Your task to perform on an android device: uninstall "WhatsApp Messenger" Image 0: 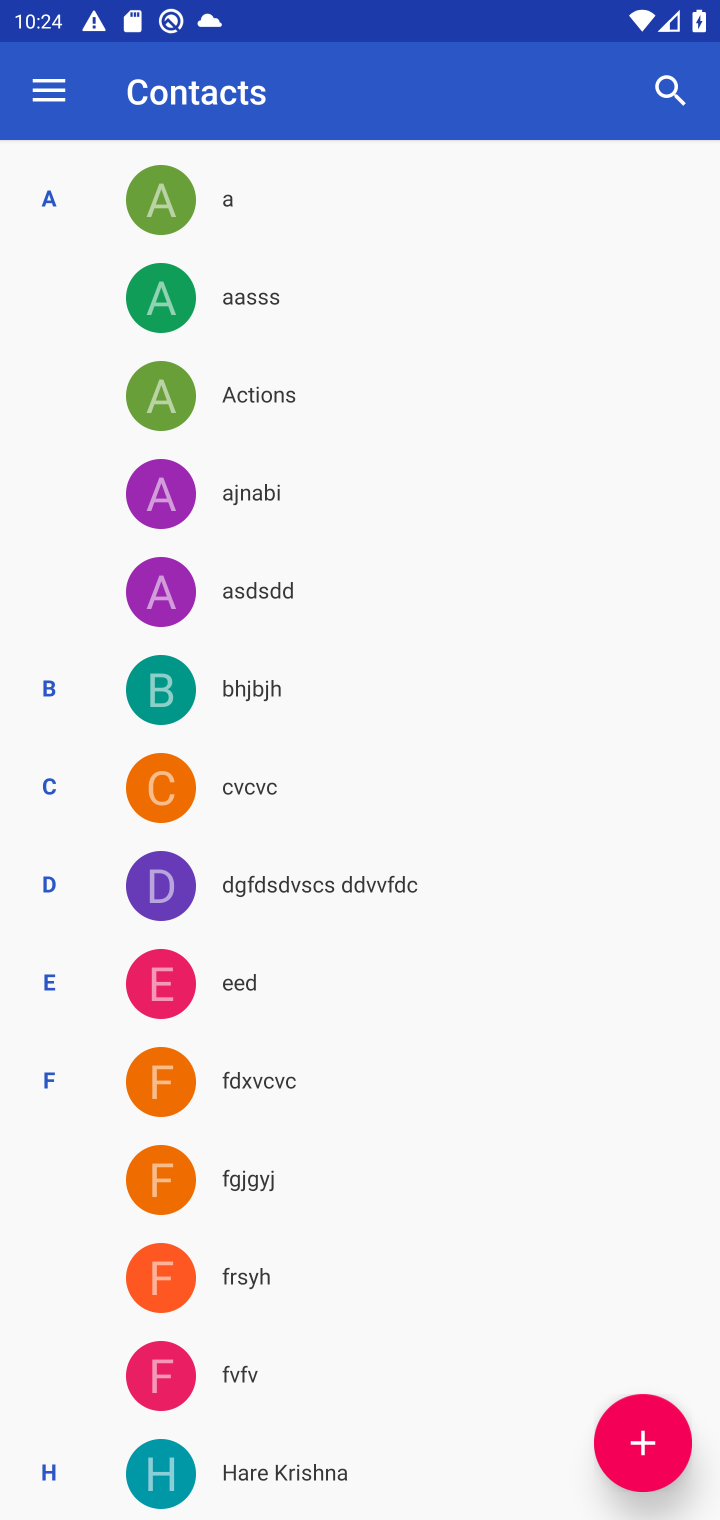
Step 0: press home button
Your task to perform on an android device: uninstall "WhatsApp Messenger" Image 1: 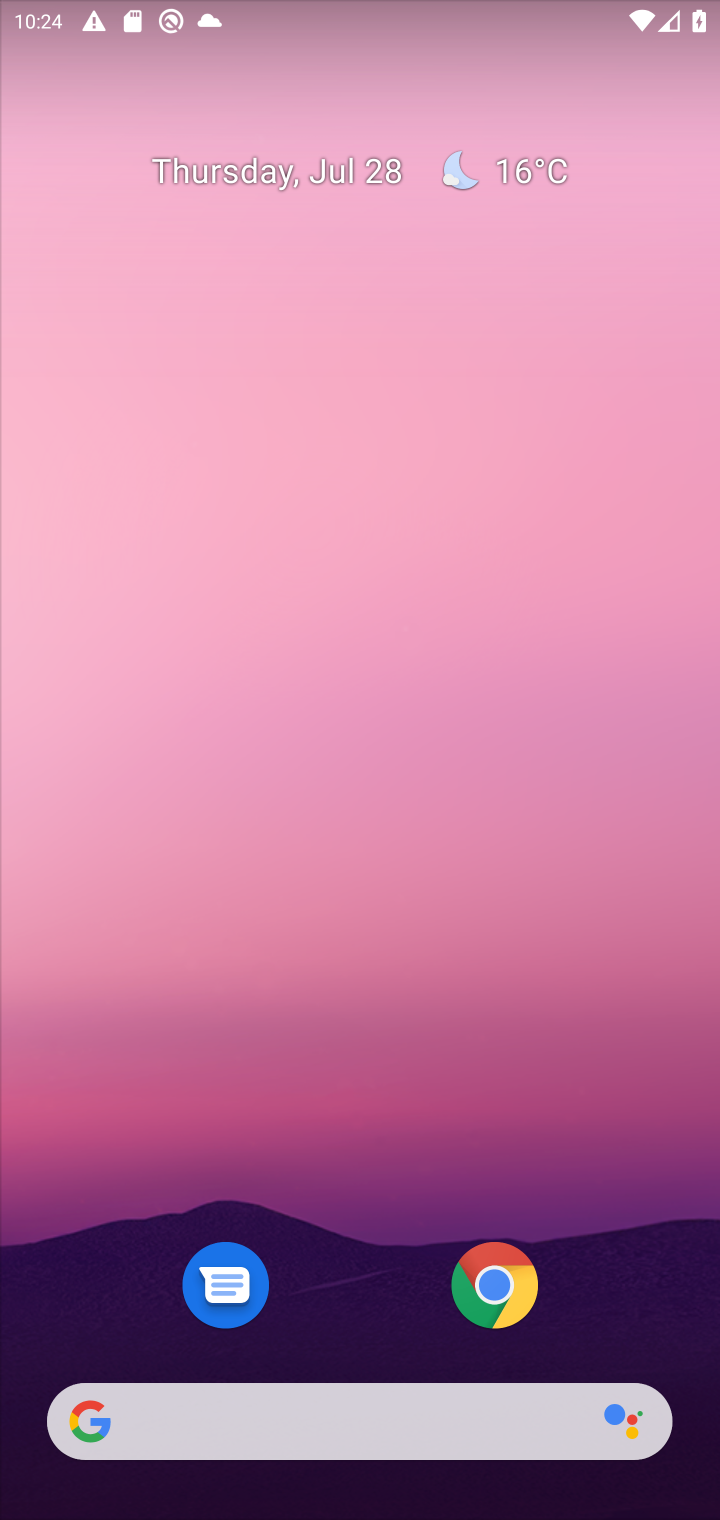
Step 1: drag from (370, 949) to (323, 337)
Your task to perform on an android device: uninstall "WhatsApp Messenger" Image 2: 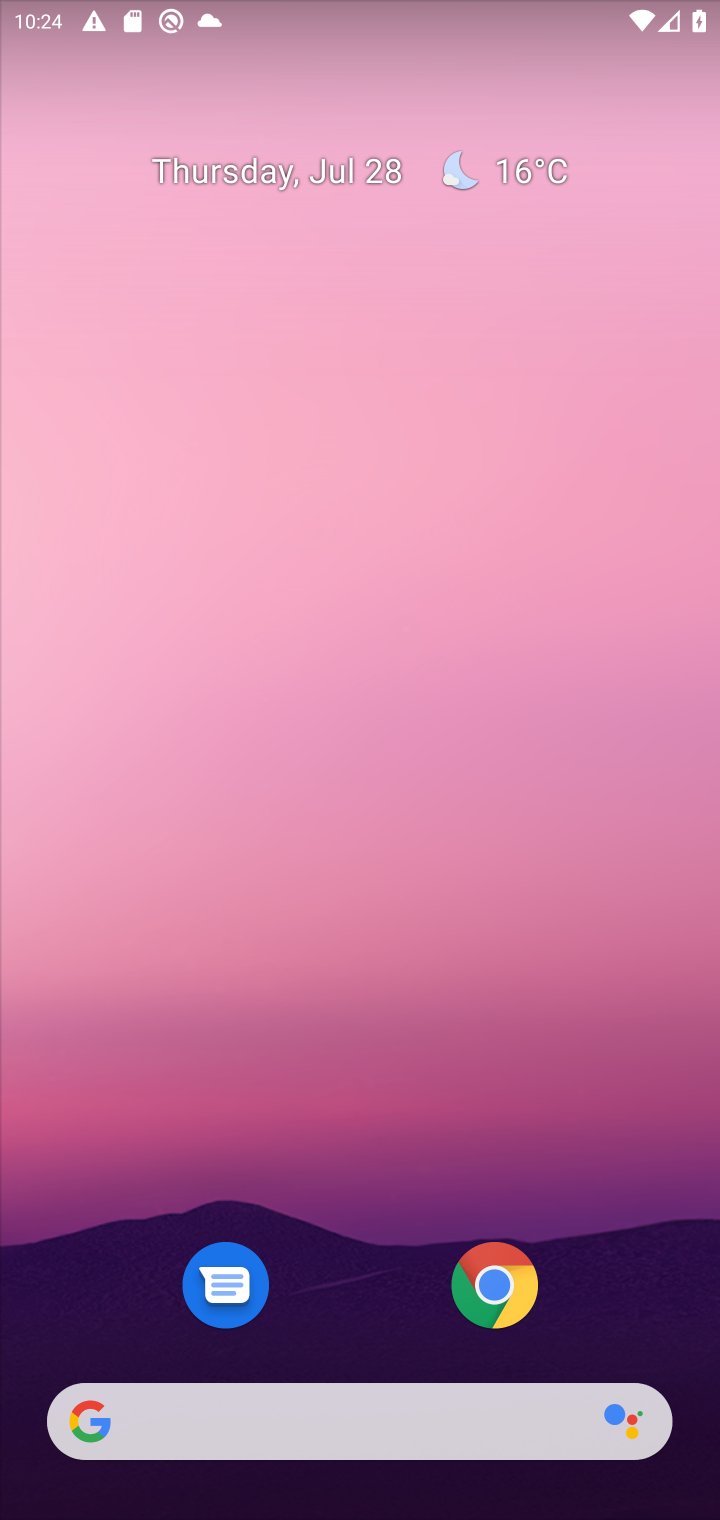
Step 2: drag from (365, 1289) to (498, 198)
Your task to perform on an android device: uninstall "WhatsApp Messenger" Image 3: 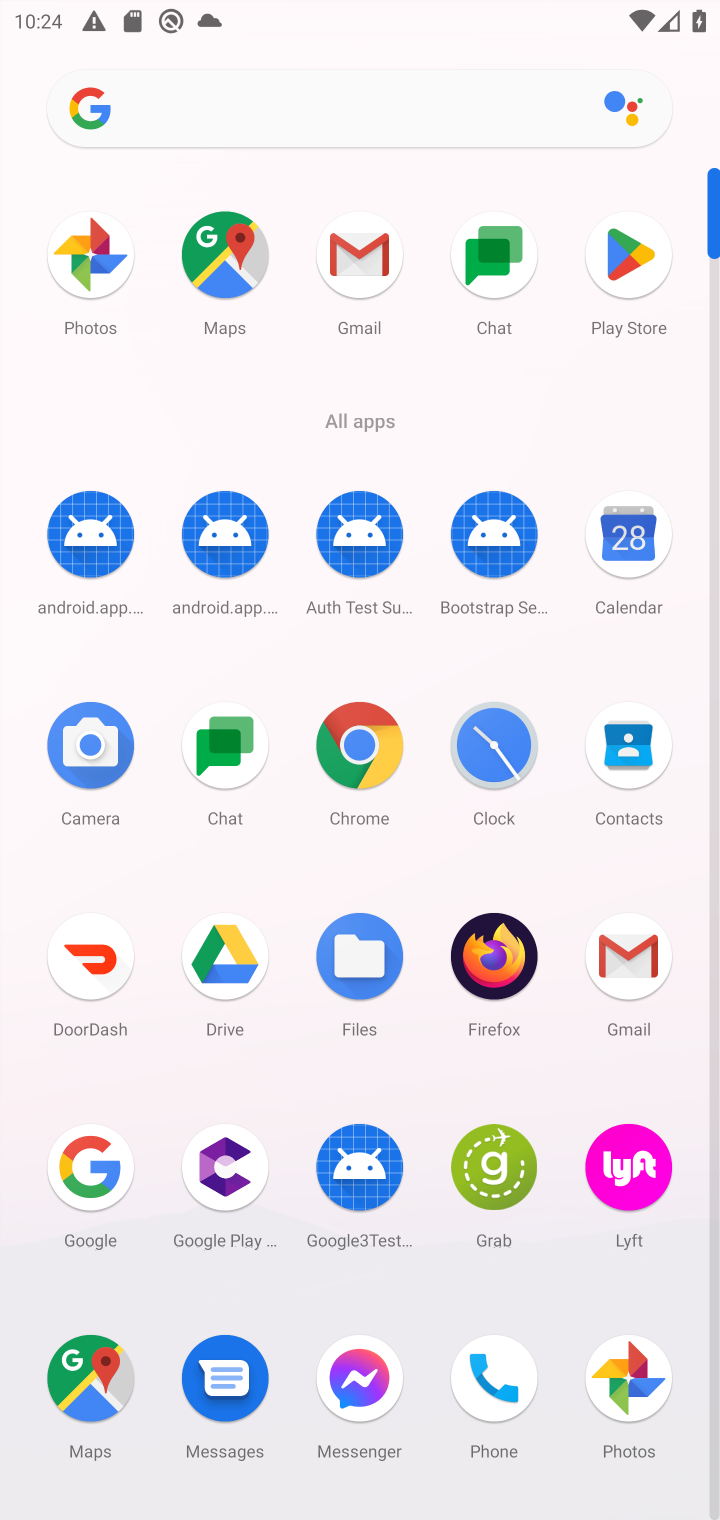
Step 3: click (640, 276)
Your task to perform on an android device: uninstall "WhatsApp Messenger" Image 4: 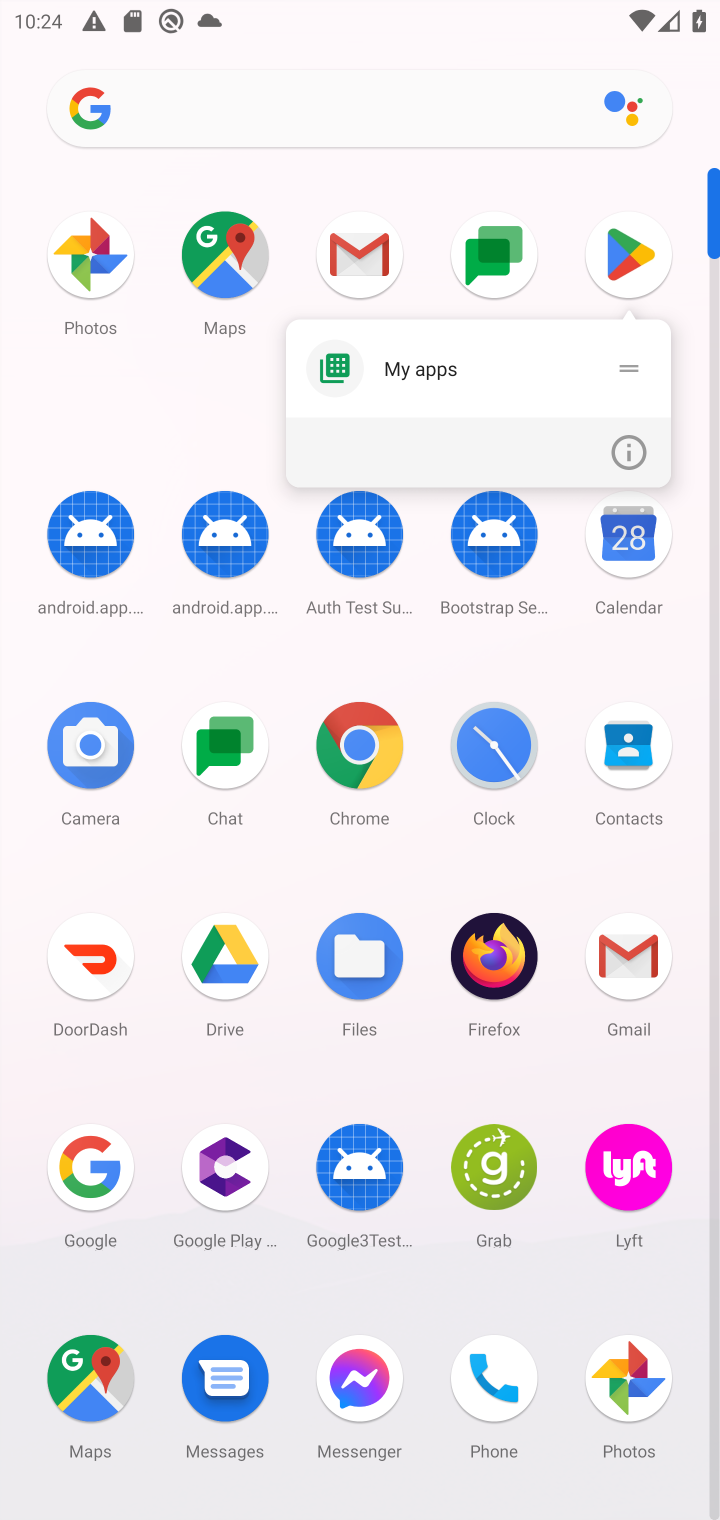
Step 4: click (634, 255)
Your task to perform on an android device: uninstall "WhatsApp Messenger" Image 5: 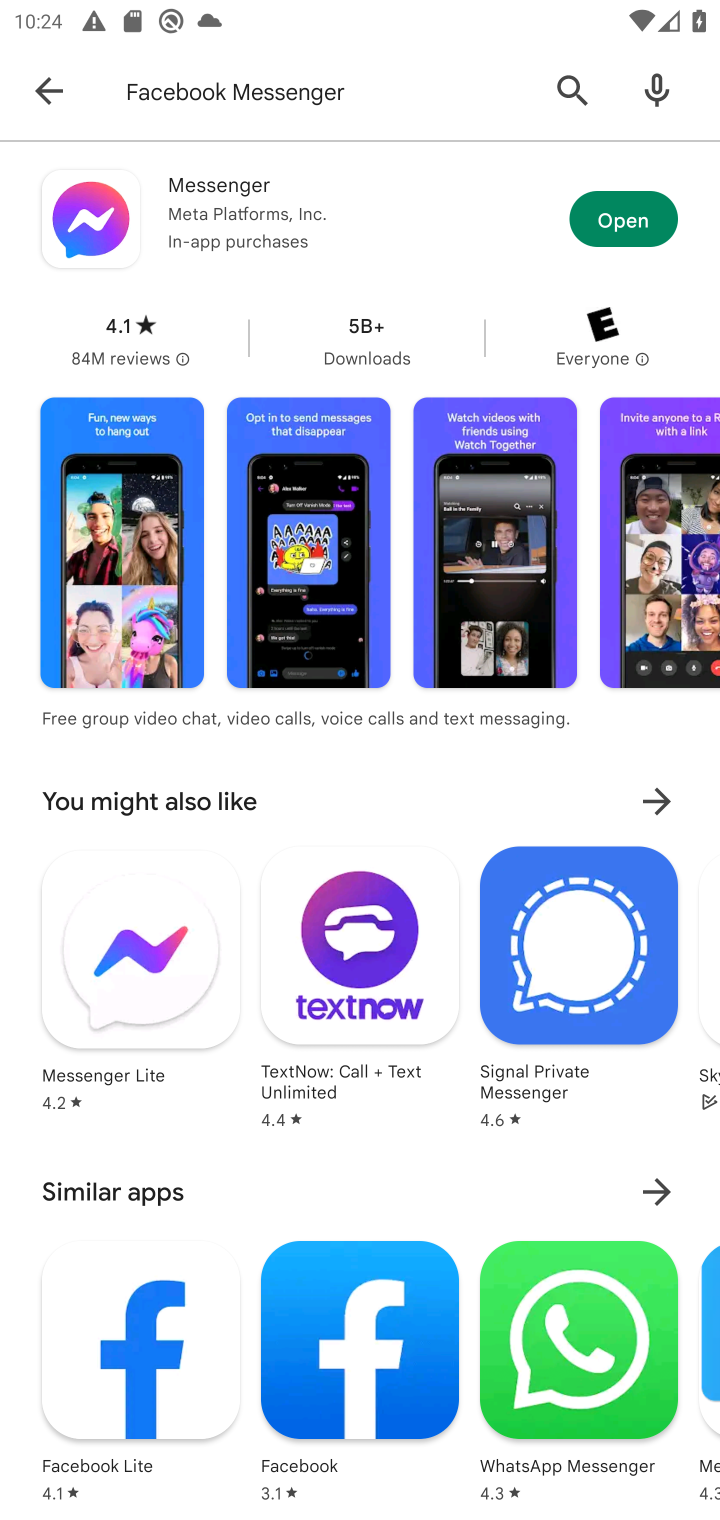
Step 5: click (338, 78)
Your task to perform on an android device: uninstall "WhatsApp Messenger" Image 6: 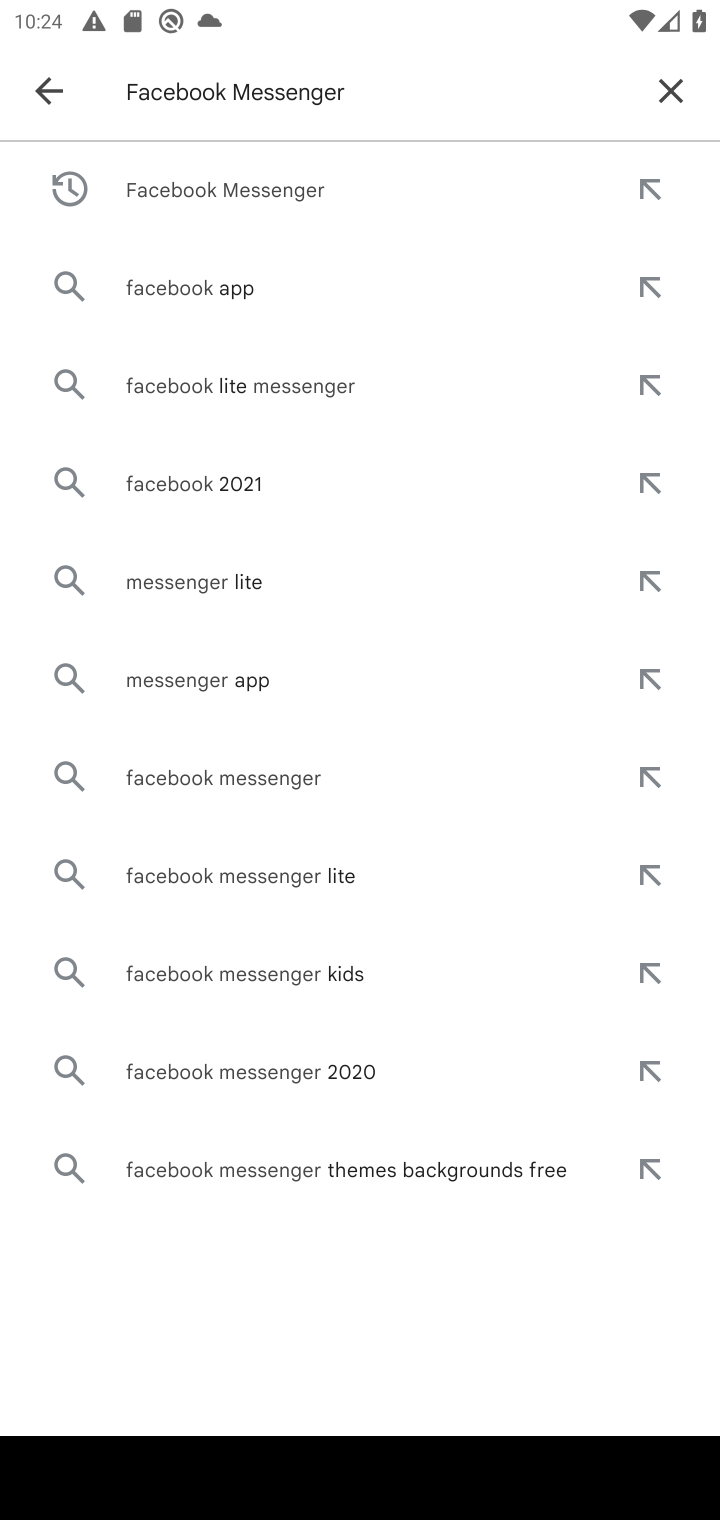
Step 6: click (664, 77)
Your task to perform on an android device: uninstall "WhatsApp Messenger" Image 7: 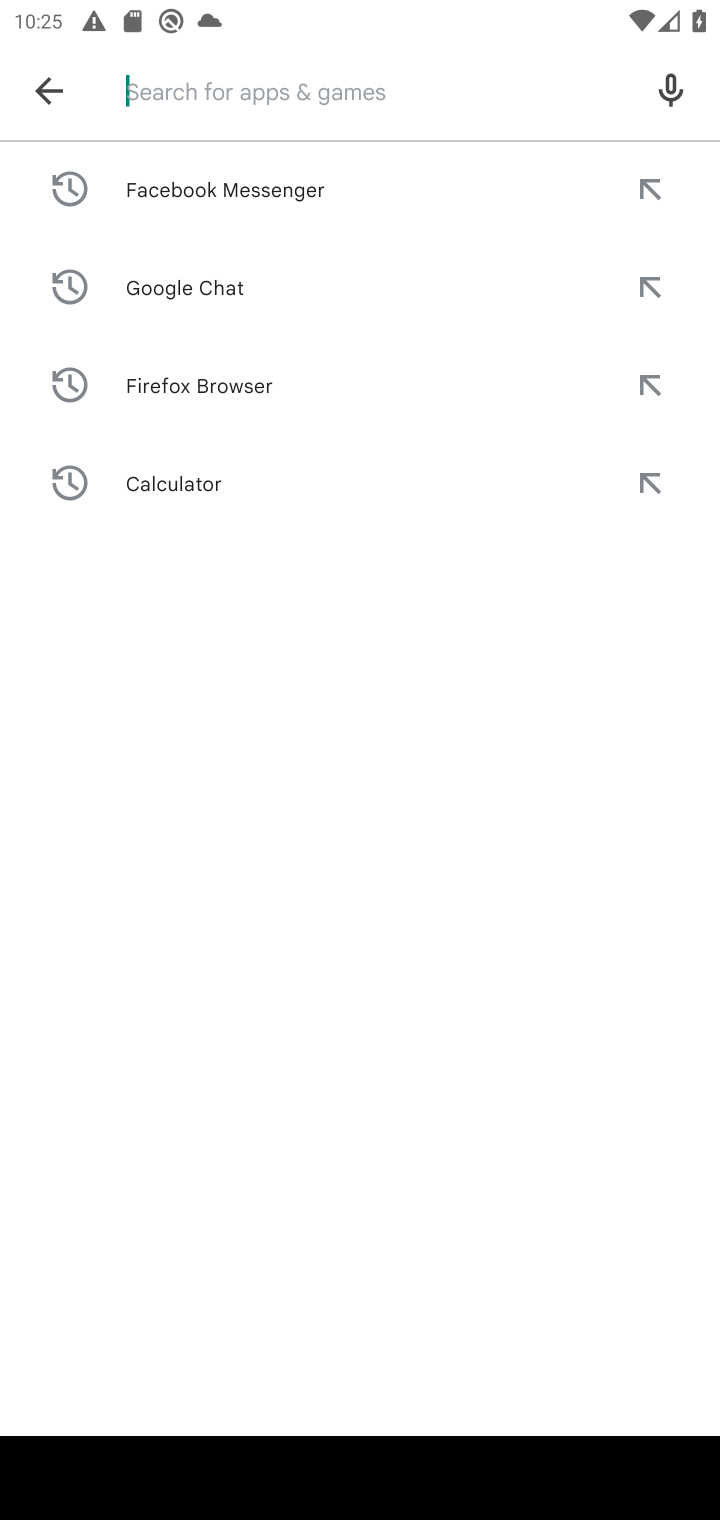
Step 7: type "WhatsApp Messenger"
Your task to perform on an android device: uninstall "WhatsApp Messenger" Image 8: 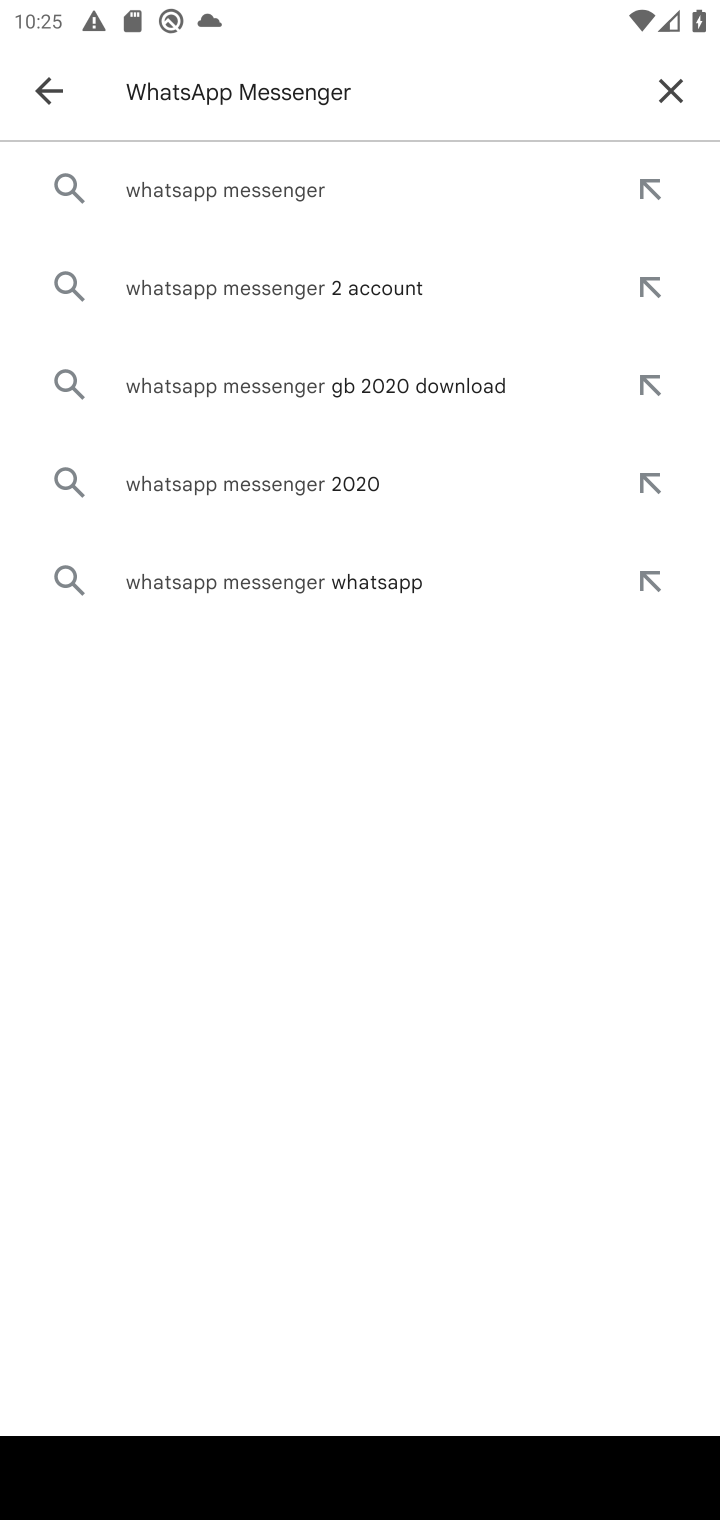
Step 8: press enter
Your task to perform on an android device: uninstall "WhatsApp Messenger" Image 9: 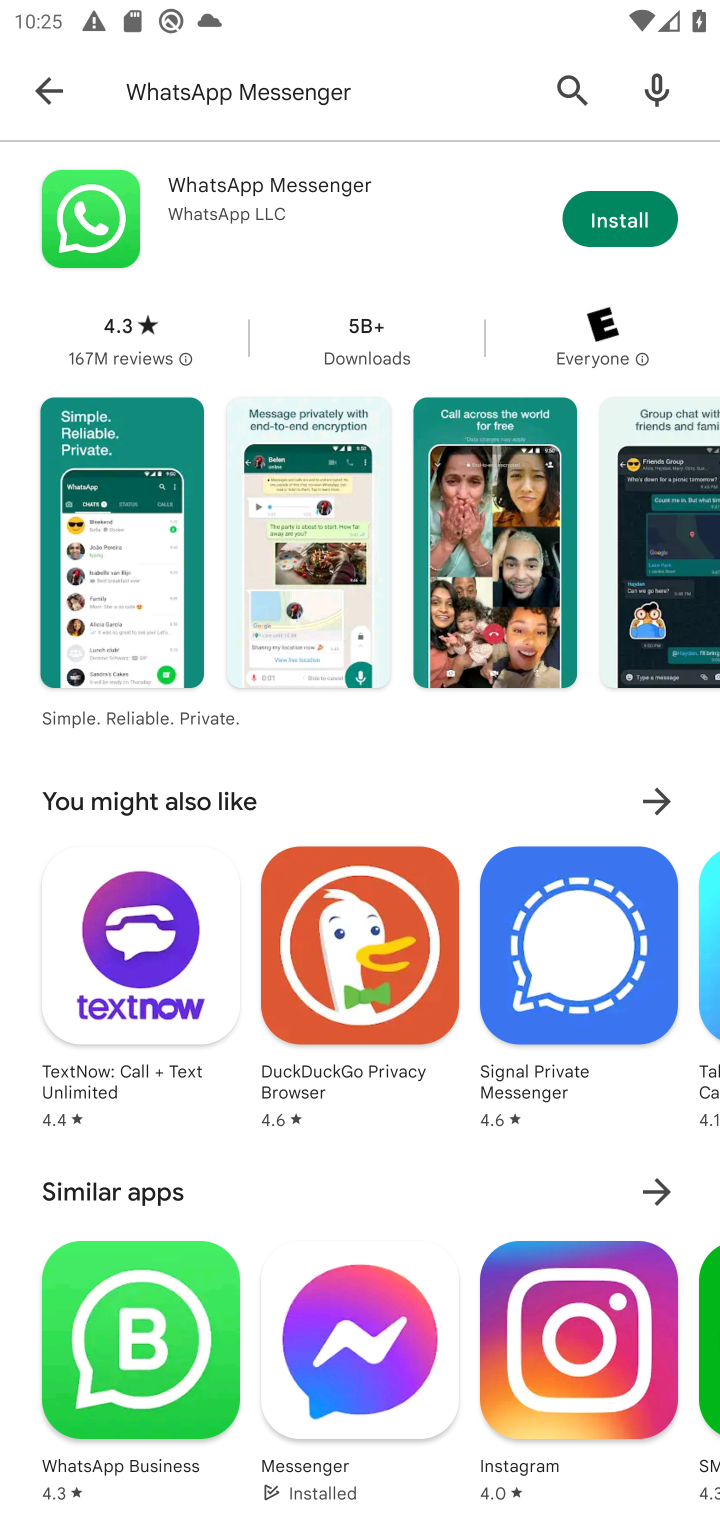
Step 9: task complete